Your task to perform on an android device: open a bookmark in the chrome app Image 0: 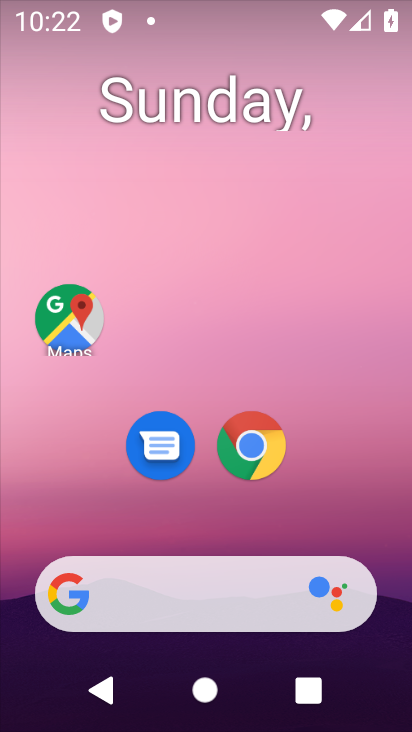
Step 0: click (245, 458)
Your task to perform on an android device: open a bookmark in the chrome app Image 1: 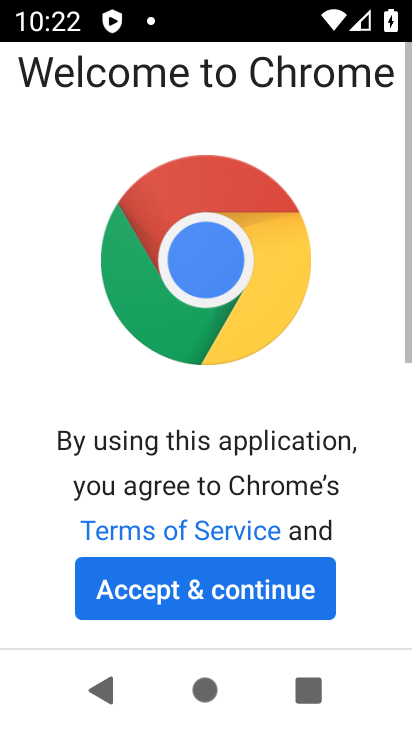
Step 1: click (256, 599)
Your task to perform on an android device: open a bookmark in the chrome app Image 2: 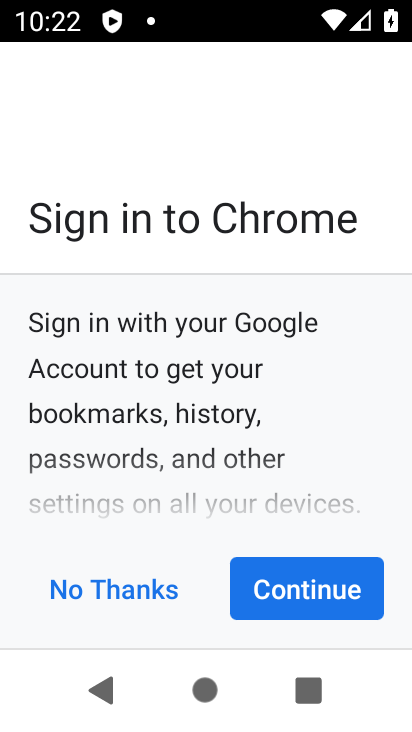
Step 2: click (274, 587)
Your task to perform on an android device: open a bookmark in the chrome app Image 3: 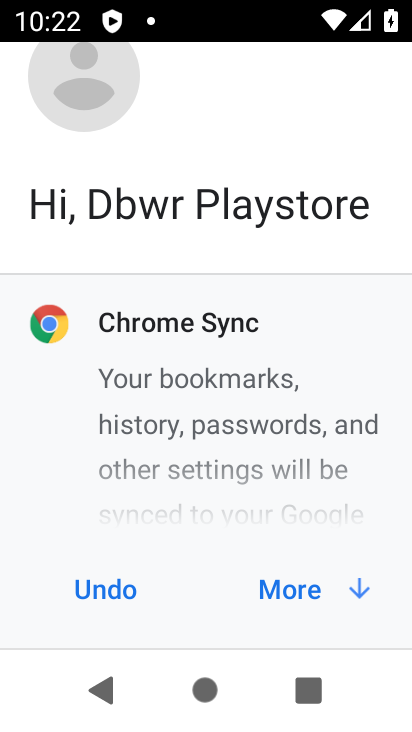
Step 3: click (274, 585)
Your task to perform on an android device: open a bookmark in the chrome app Image 4: 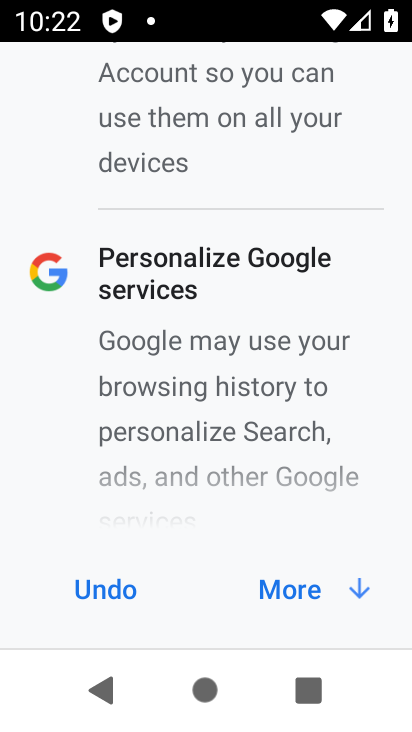
Step 4: click (274, 585)
Your task to perform on an android device: open a bookmark in the chrome app Image 5: 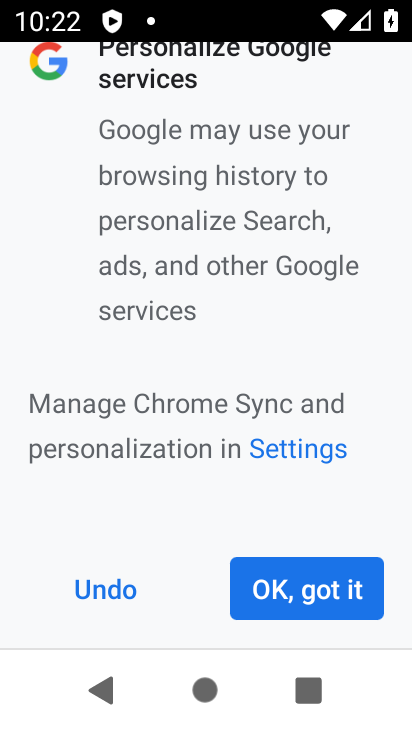
Step 5: click (274, 584)
Your task to perform on an android device: open a bookmark in the chrome app Image 6: 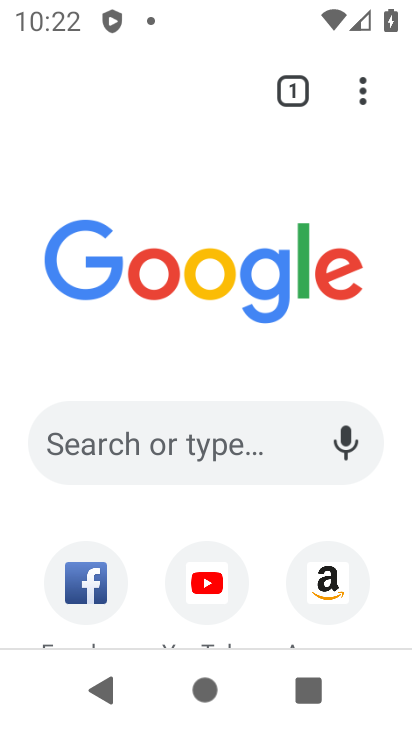
Step 6: click (345, 117)
Your task to perform on an android device: open a bookmark in the chrome app Image 7: 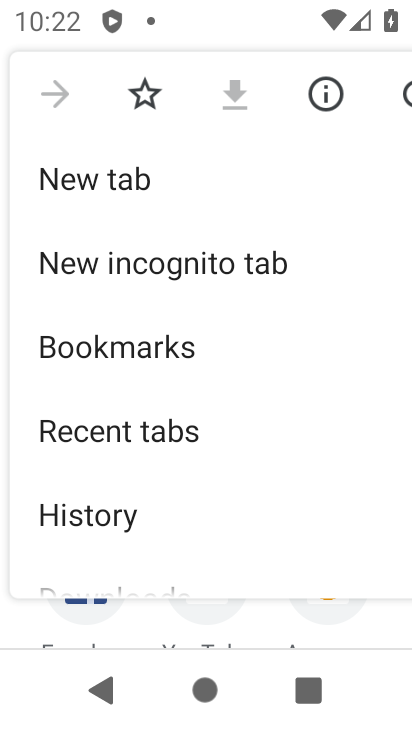
Step 7: click (111, 340)
Your task to perform on an android device: open a bookmark in the chrome app Image 8: 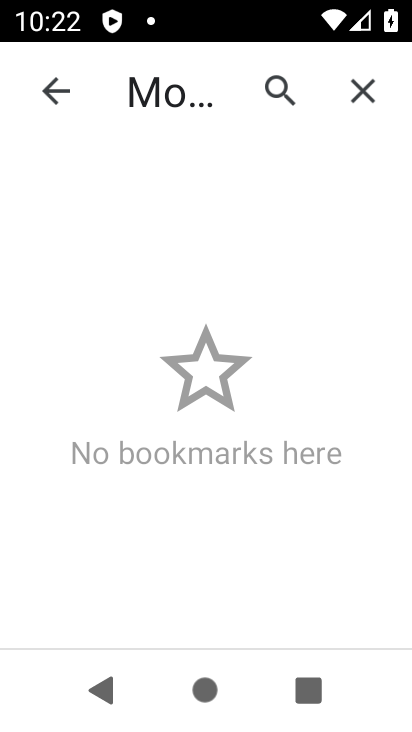
Step 8: task complete